Your task to perform on an android device: Search for a custom made wallet on Etsy Image 0: 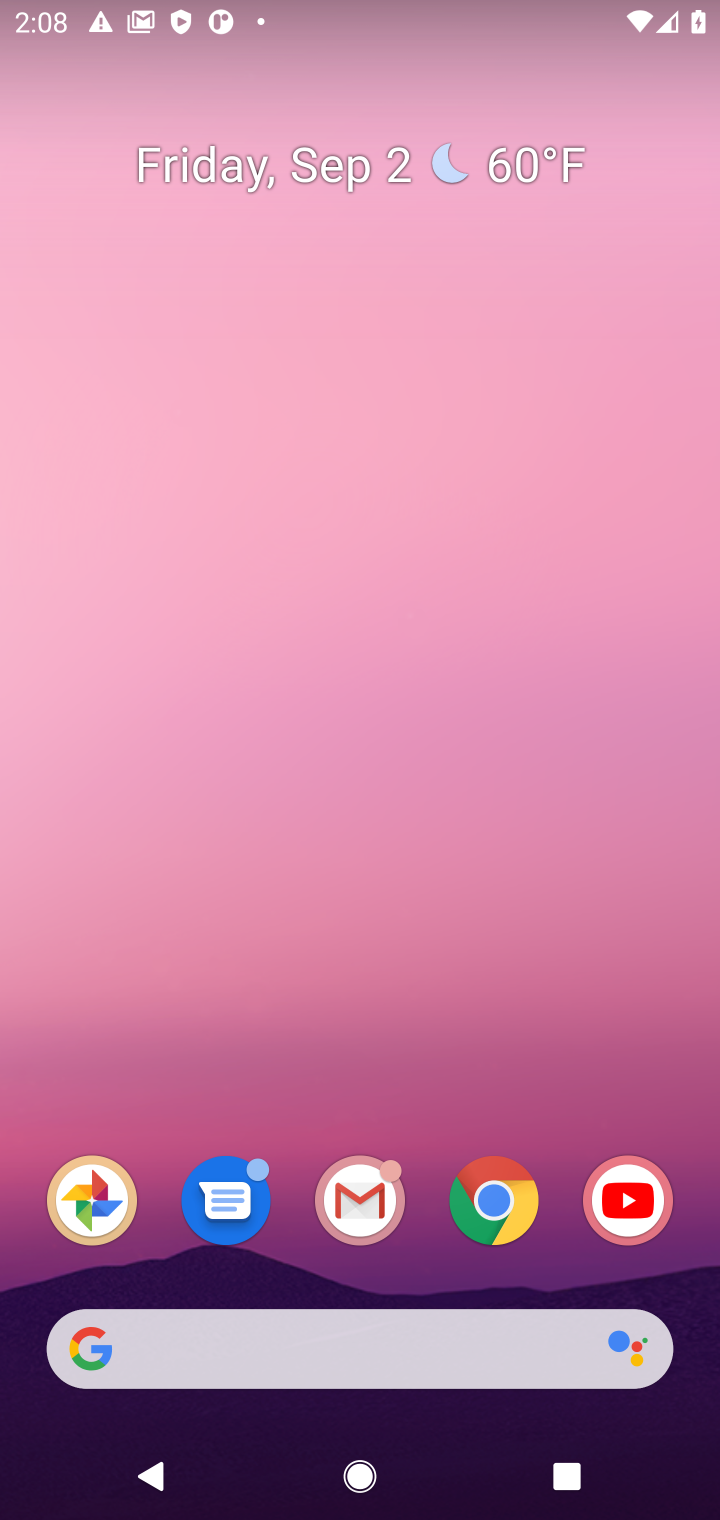
Step 0: click (504, 1204)
Your task to perform on an android device: Search for a custom made wallet on Etsy Image 1: 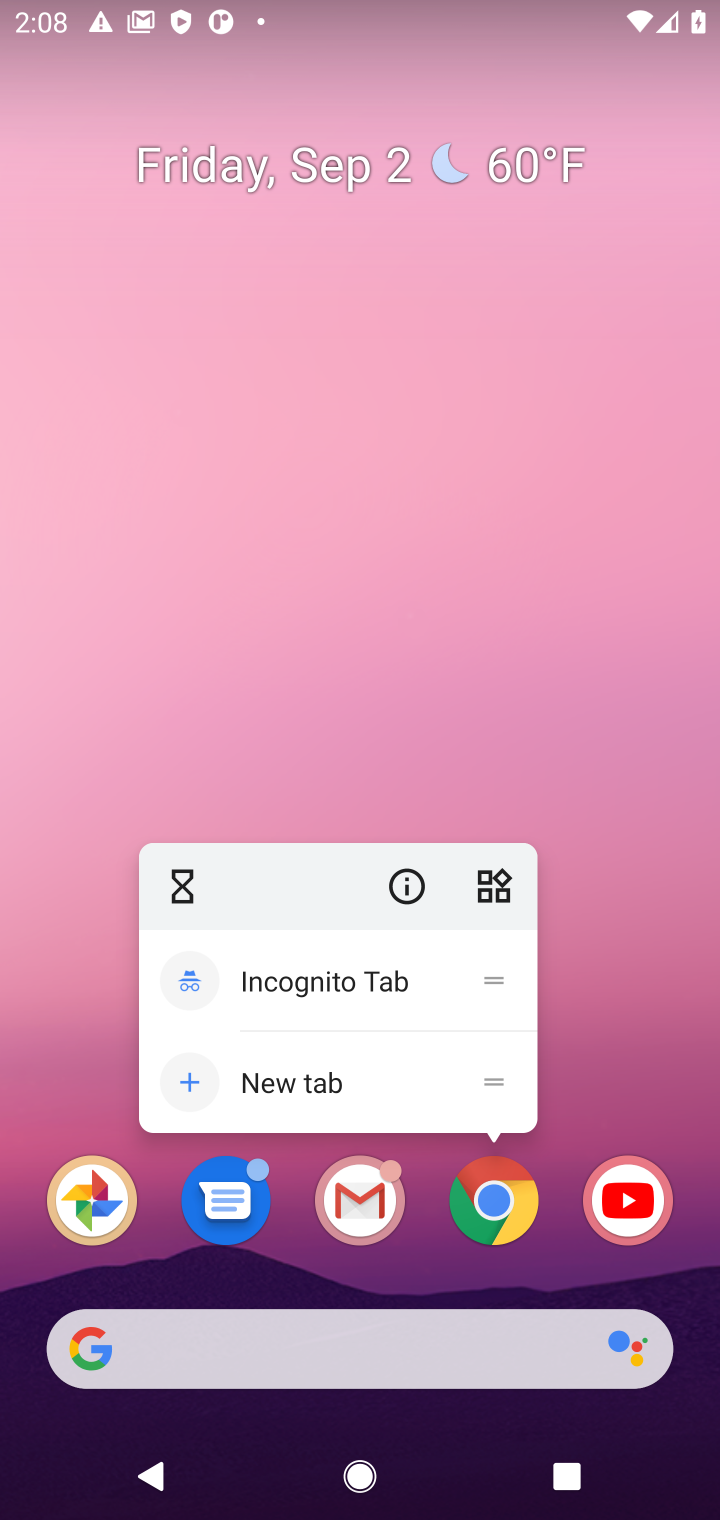
Step 1: click (487, 1211)
Your task to perform on an android device: Search for a custom made wallet on Etsy Image 2: 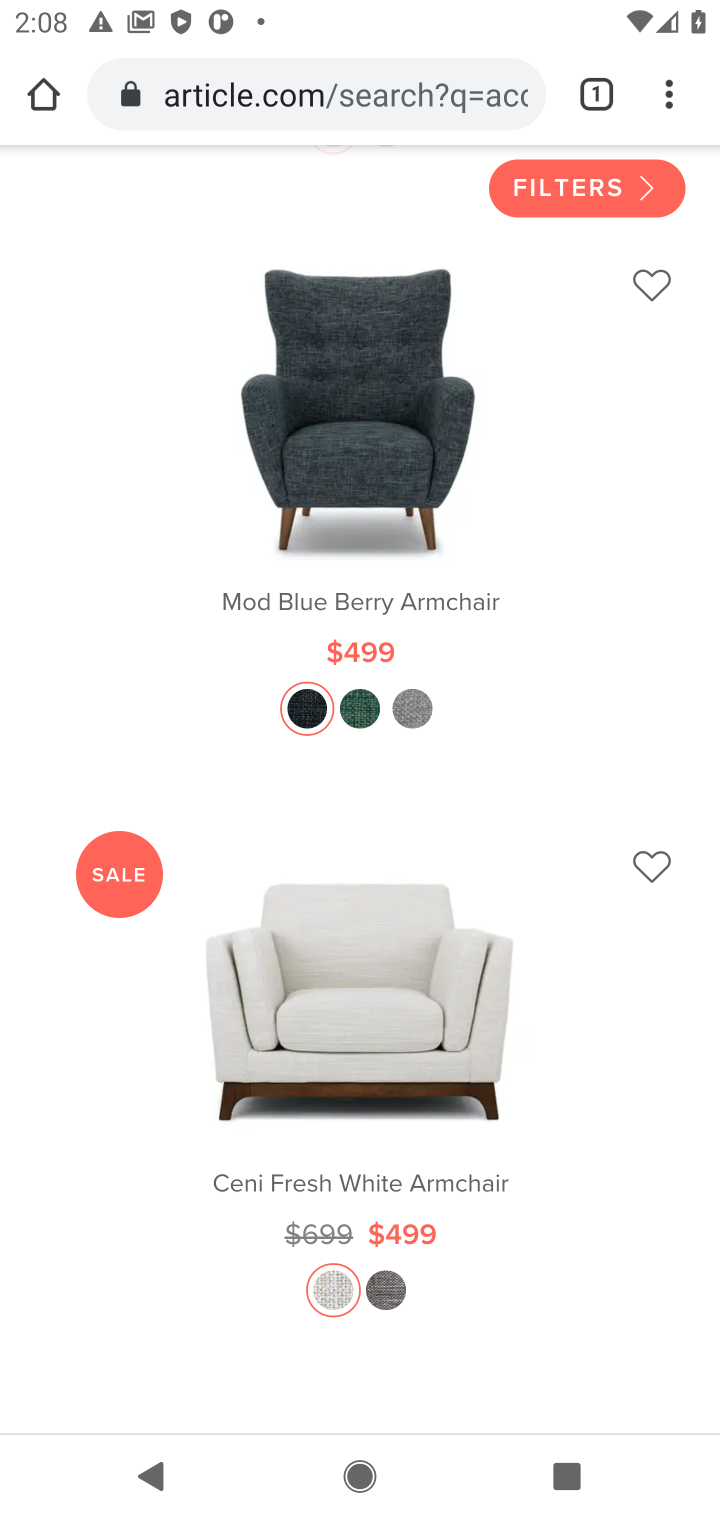
Step 2: click (448, 100)
Your task to perform on an android device: Search for a custom made wallet on Etsy Image 3: 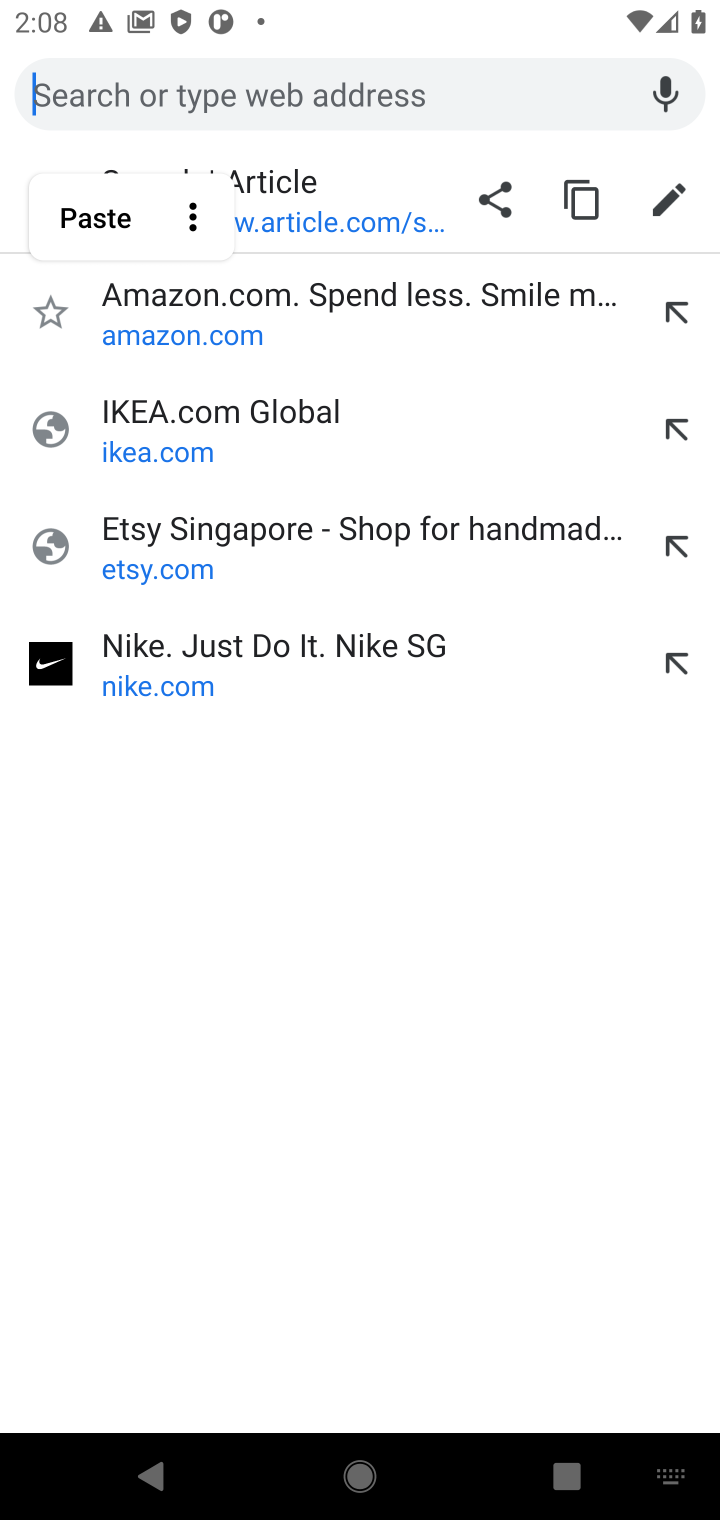
Step 3: type "Etsy"
Your task to perform on an android device: Search for a custom made wallet on Etsy Image 4: 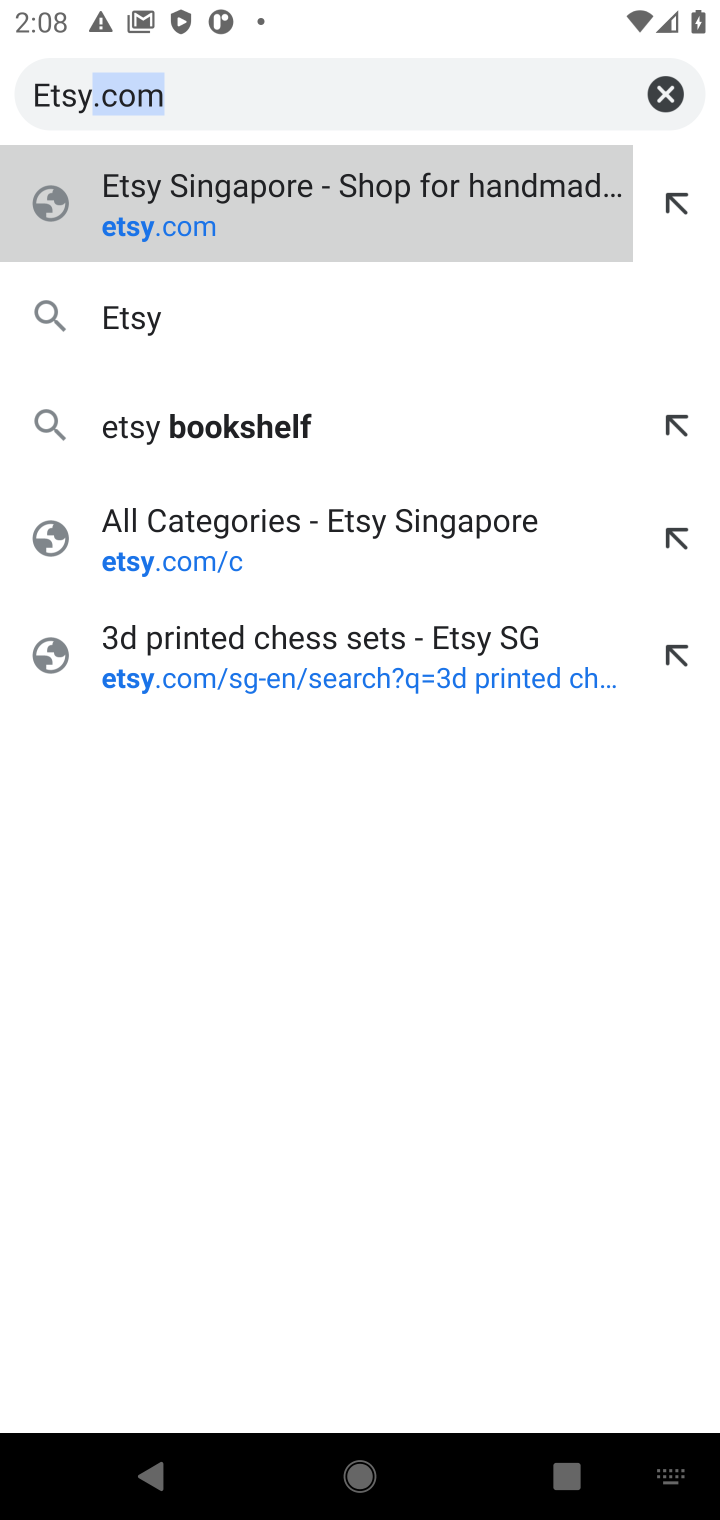
Step 4: press enter
Your task to perform on an android device: Search for a custom made wallet on Etsy Image 5: 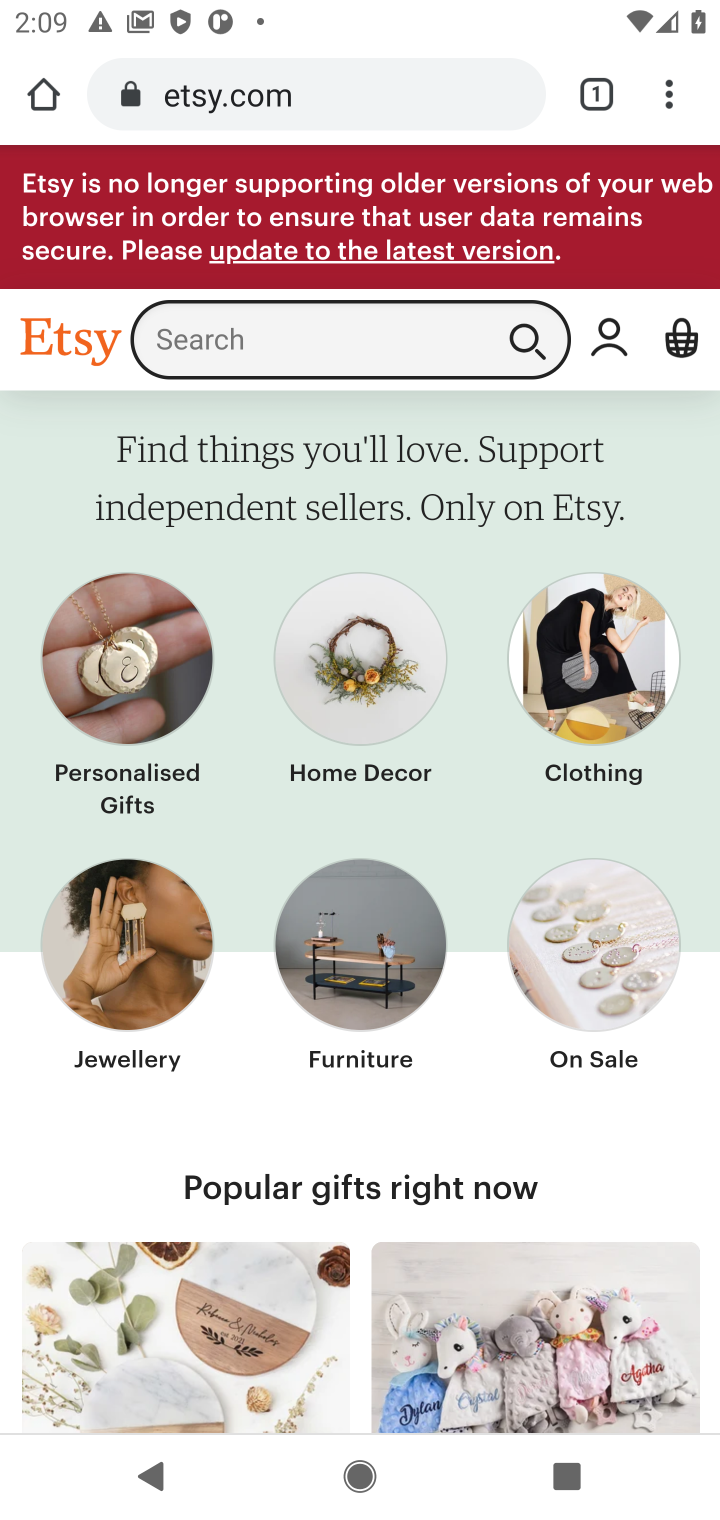
Step 5: click (432, 348)
Your task to perform on an android device: Search for a custom made wallet on Etsy Image 6: 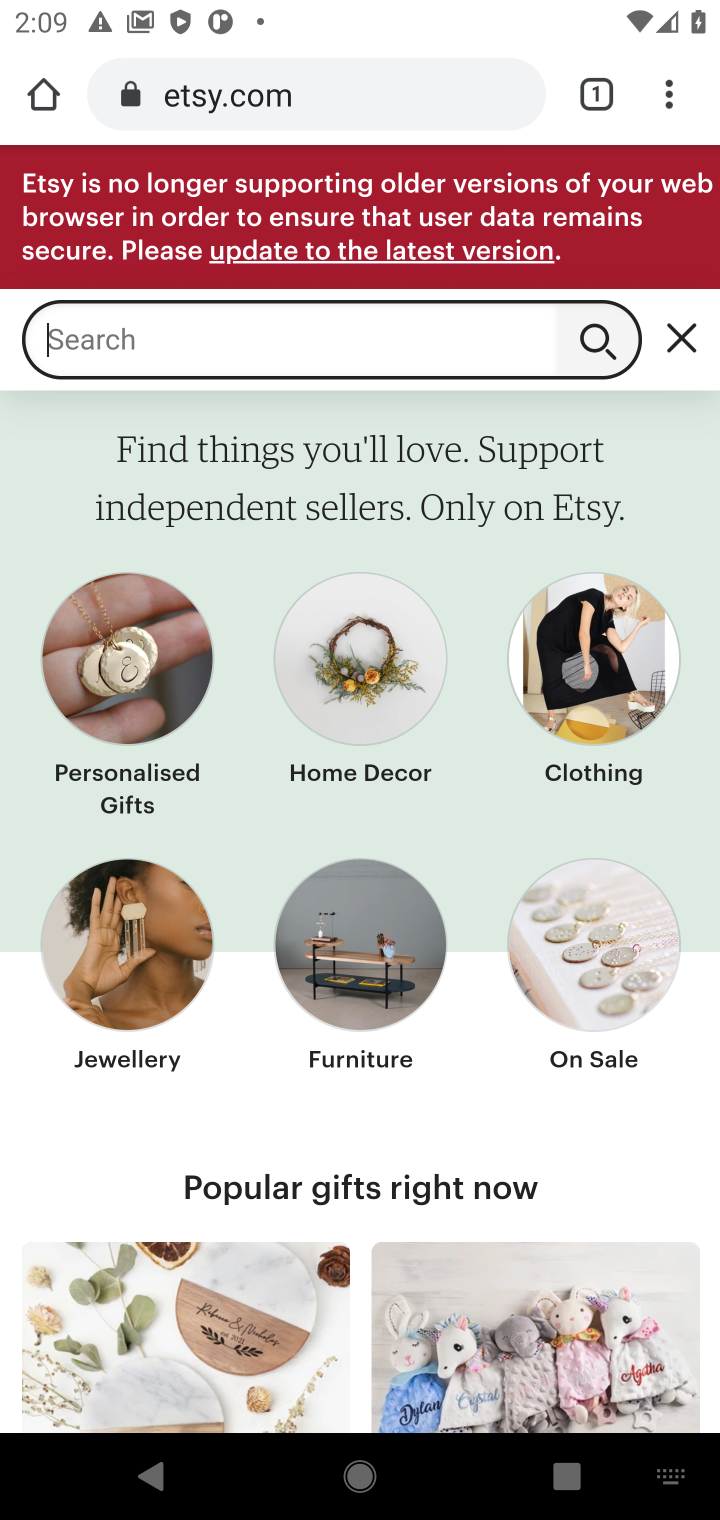
Step 6: click (444, 346)
Your task to perform on an android device: Search for a custom made wallet on Etsy Image 7: 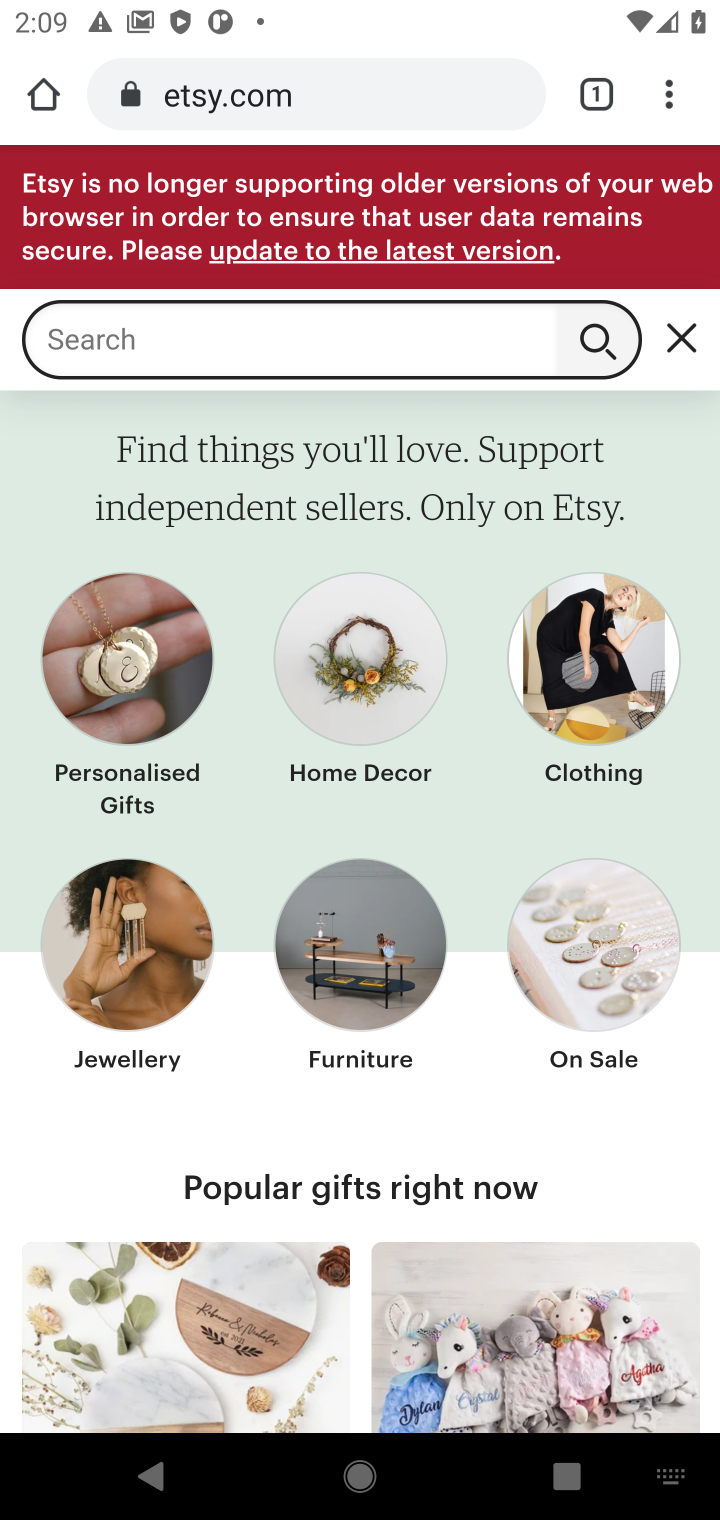
Step 7: press enter
Your task to perform on an android device: Search for a custom made wallet on Etsy Image 8: 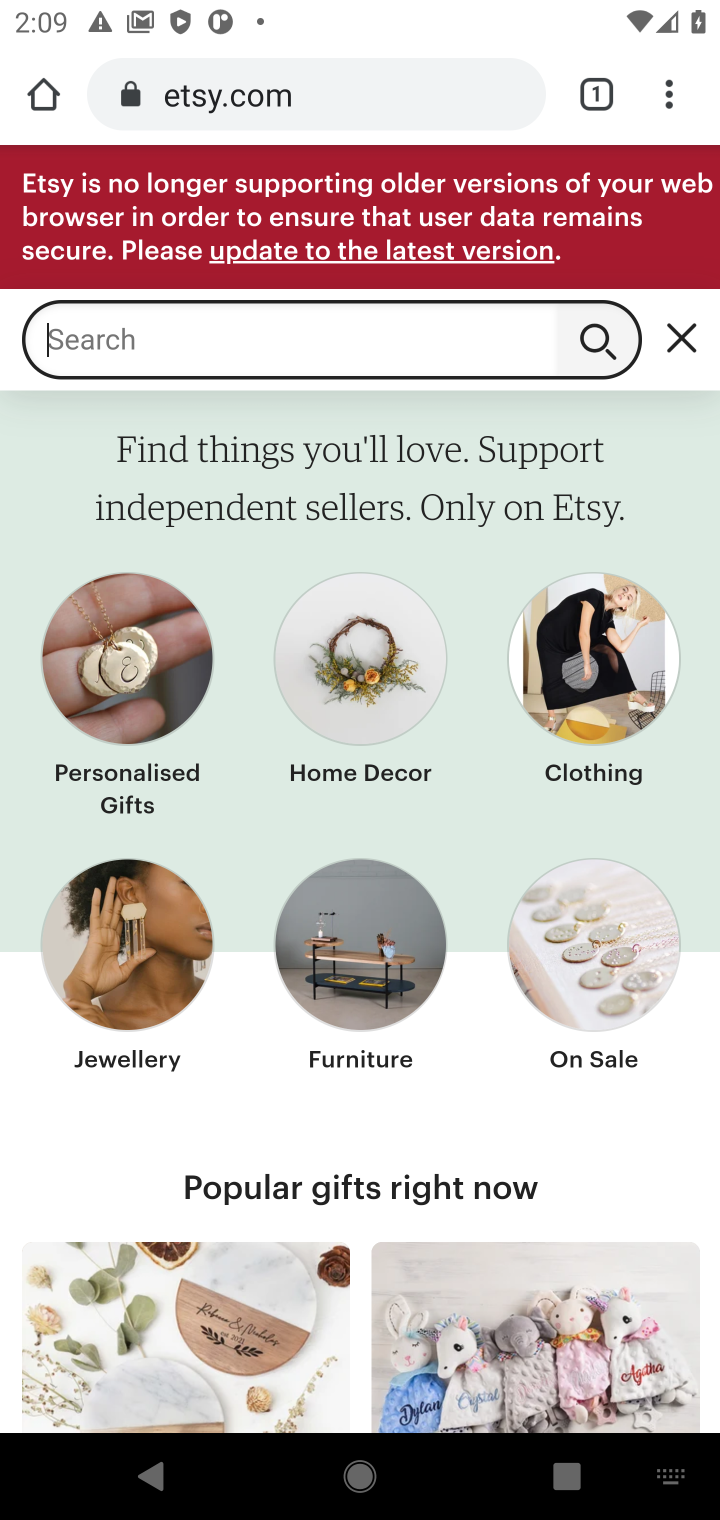
Step 8: type "custom made wallet"
Your task to perform on an android device: Search for a custom made wallet on Etsy Image 9: 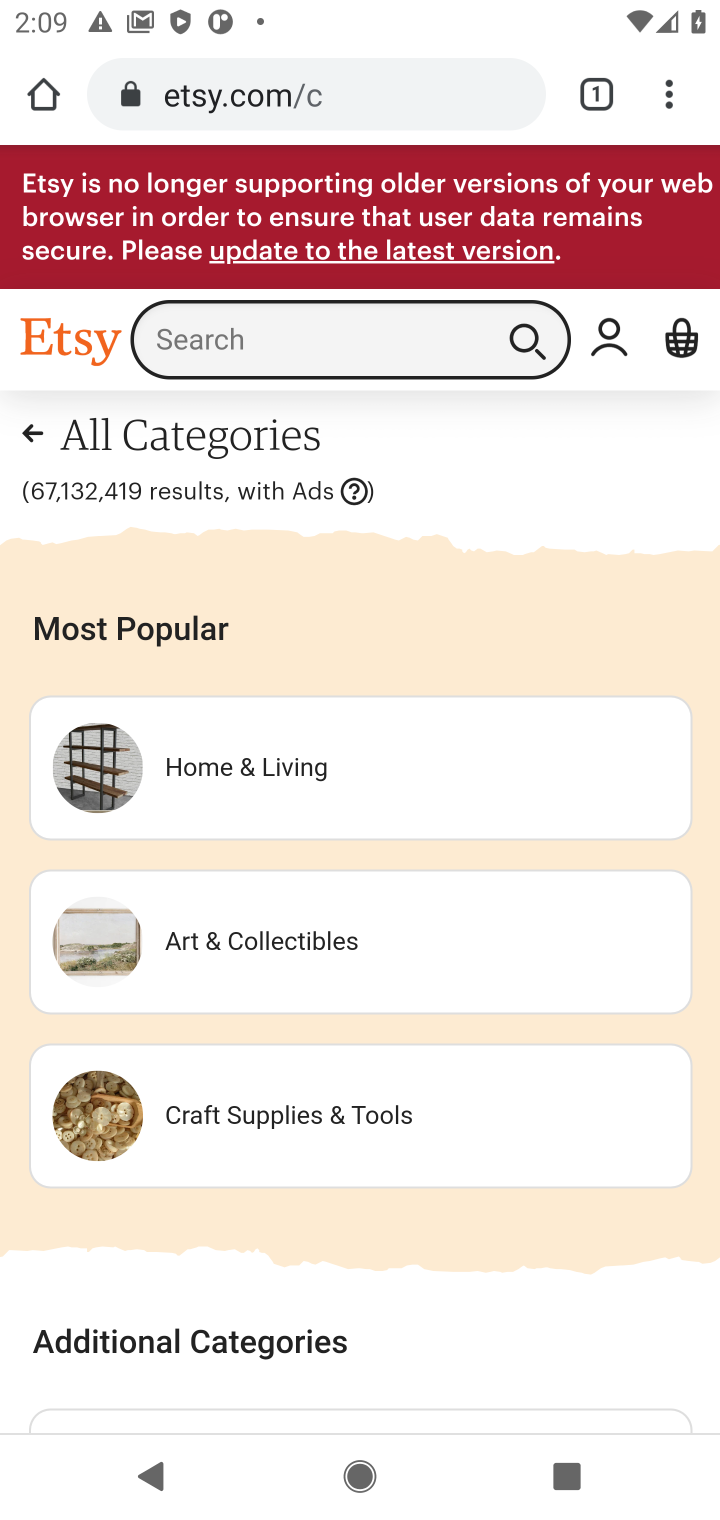
Step 9: click (313, 326)
Your task to perform on an android device: Search for a custom made wallet on Etsy Image 10: 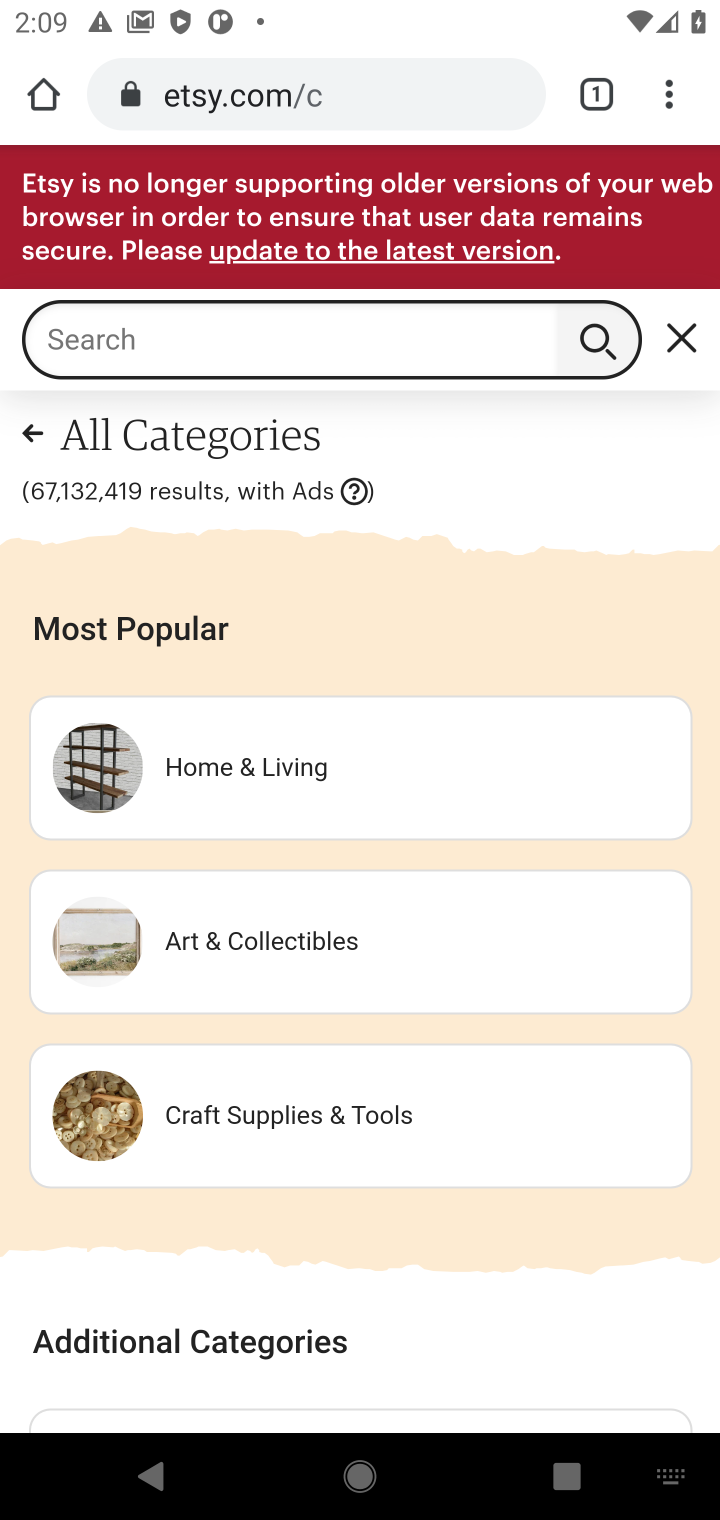
Step 10: type "custom made wallet"
Your task to perform on an android device: Search for a custom made wallet on Etsy Image 11: 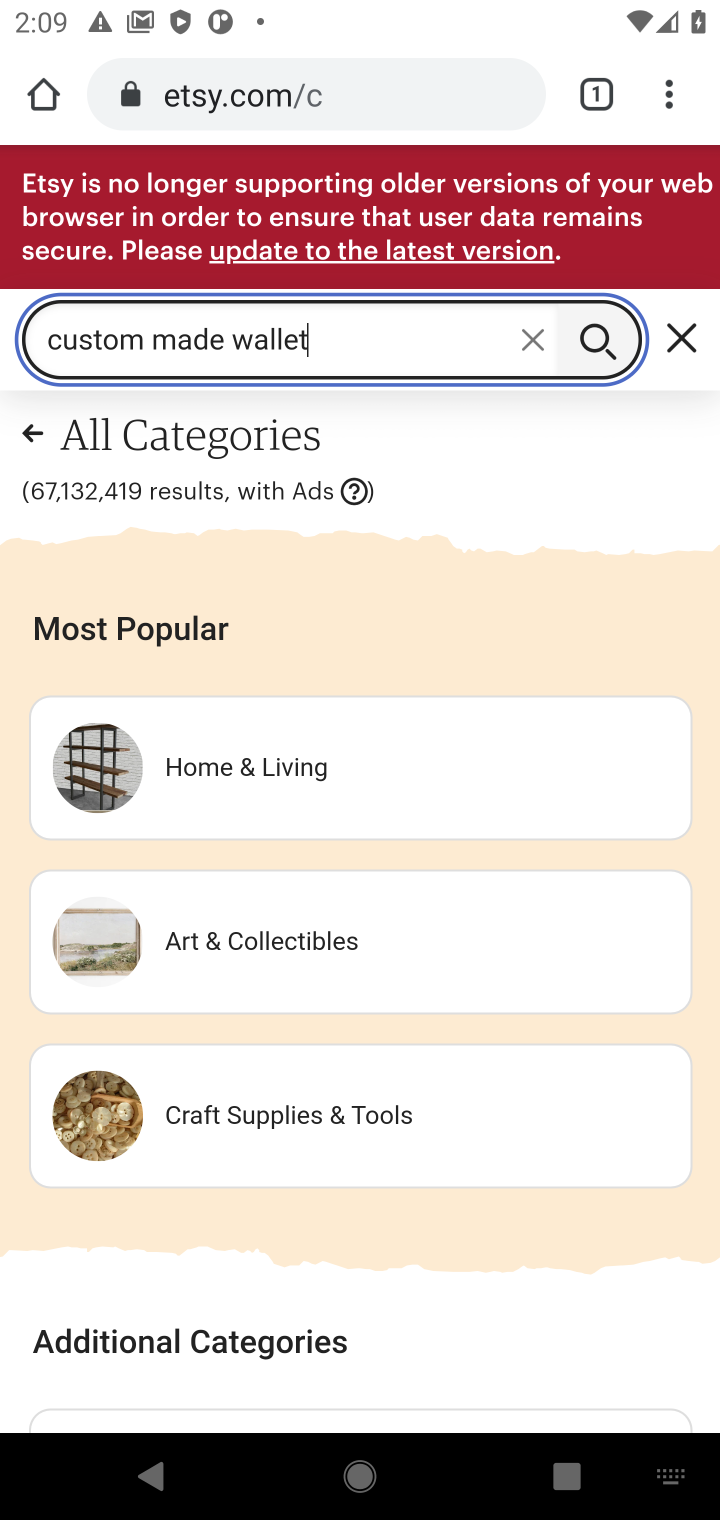
Step 11: press enter
Your task to perform on an android device: Search for a custom made wallet on Etsy Image 12: 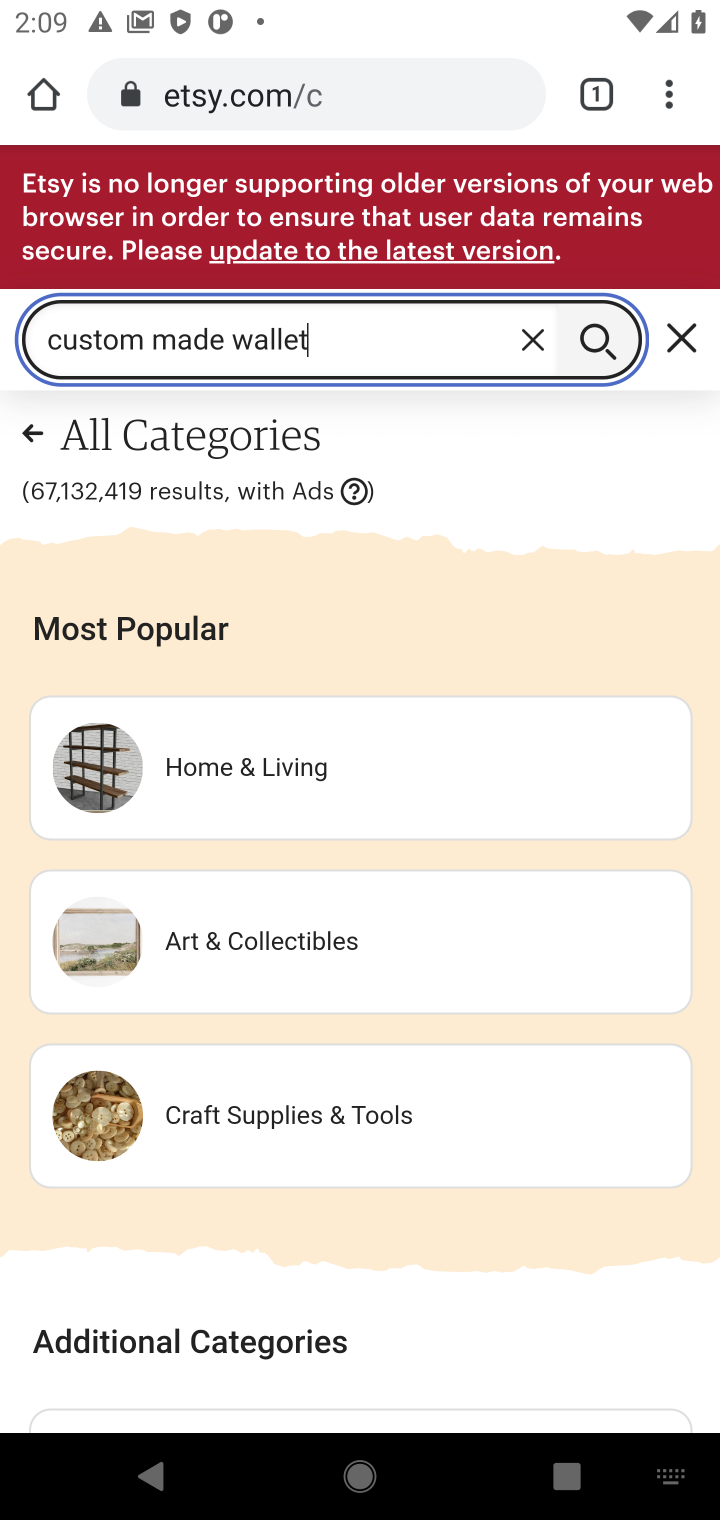
Step 12: click (602, 332)
Your task to perform on an android device: Search for a custom made wallet on Etsy Image 13: 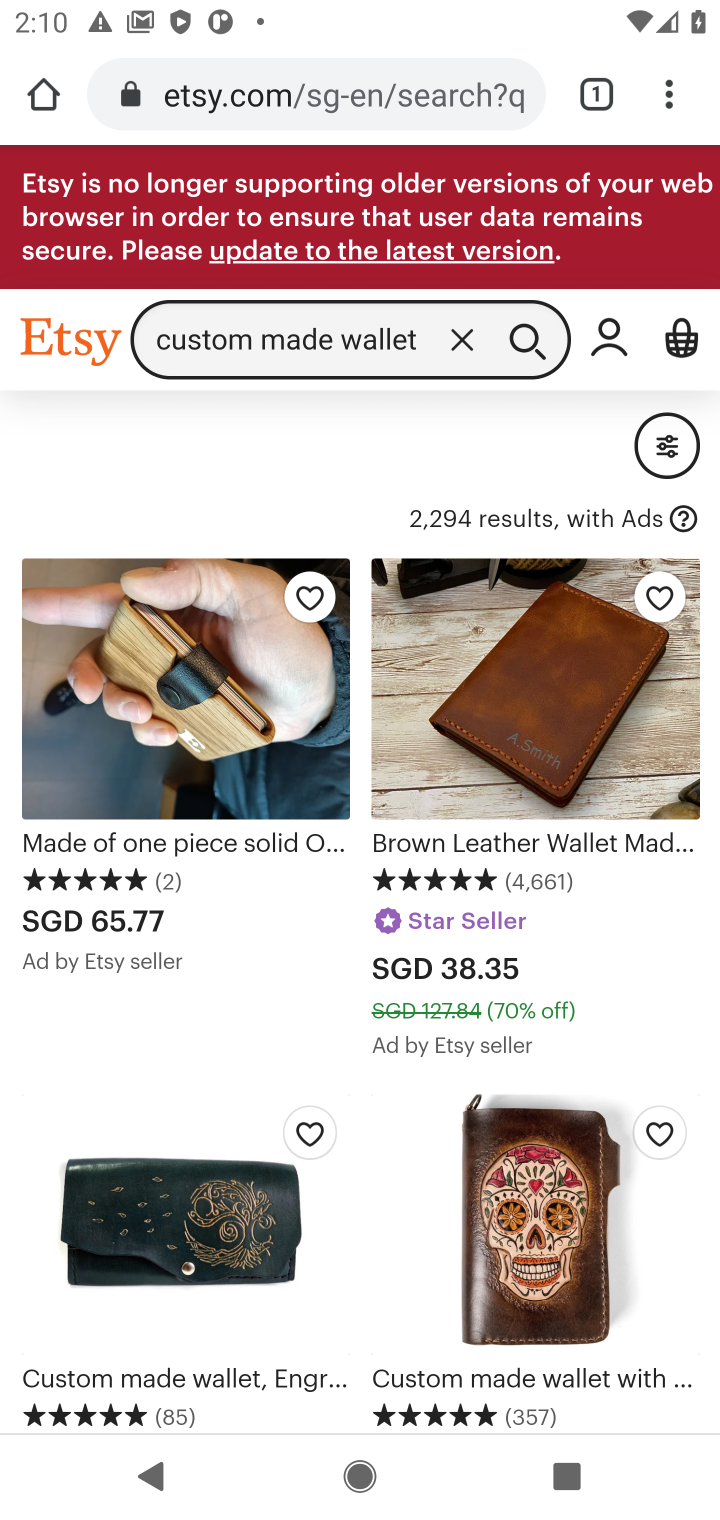
Step 13: click (519, 534)
Your task to perform on an android device: Search for a custom made wallet on Etsy Image 14: 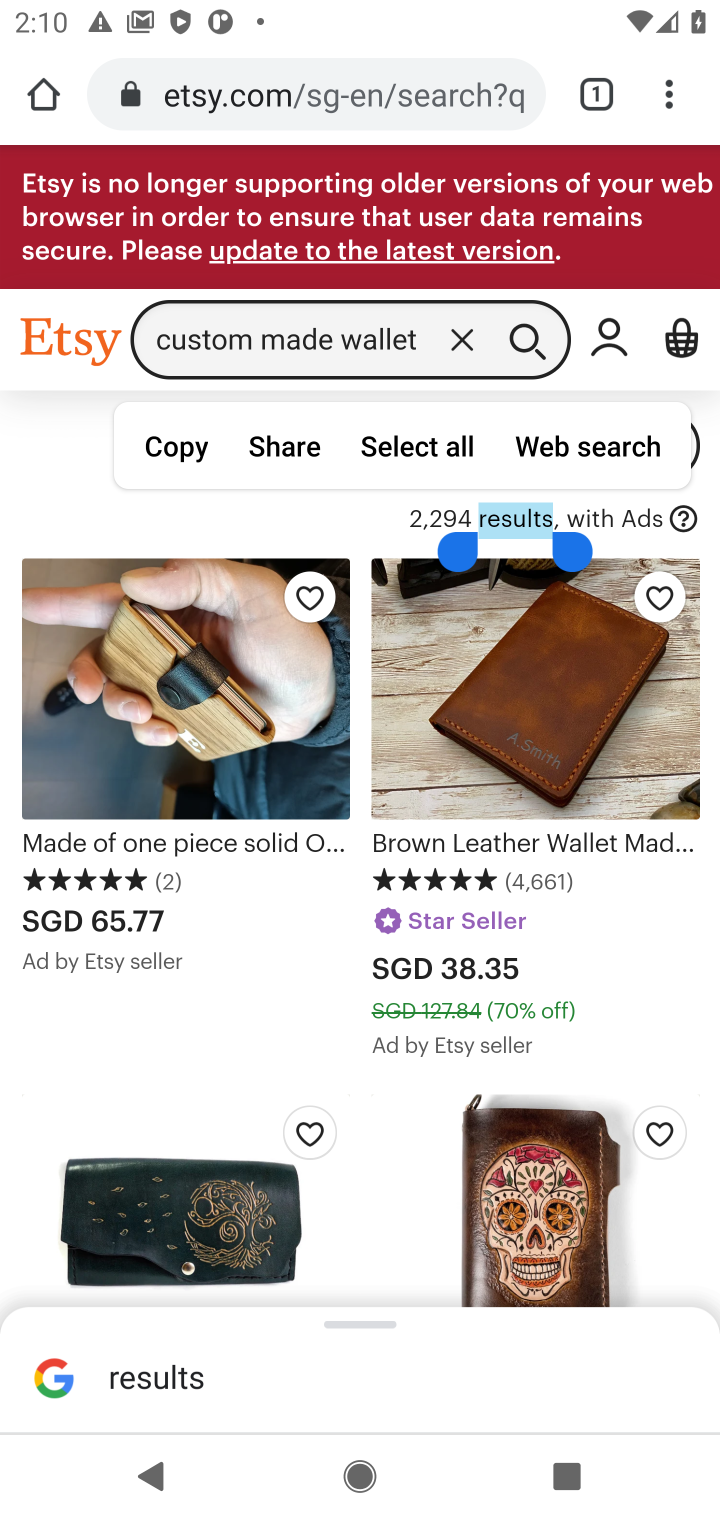
Step 14: drag from (400, 1064) to (532, 647)
Your task to perform on an android device: Search for a custom made wallet on Etsy Image 15: 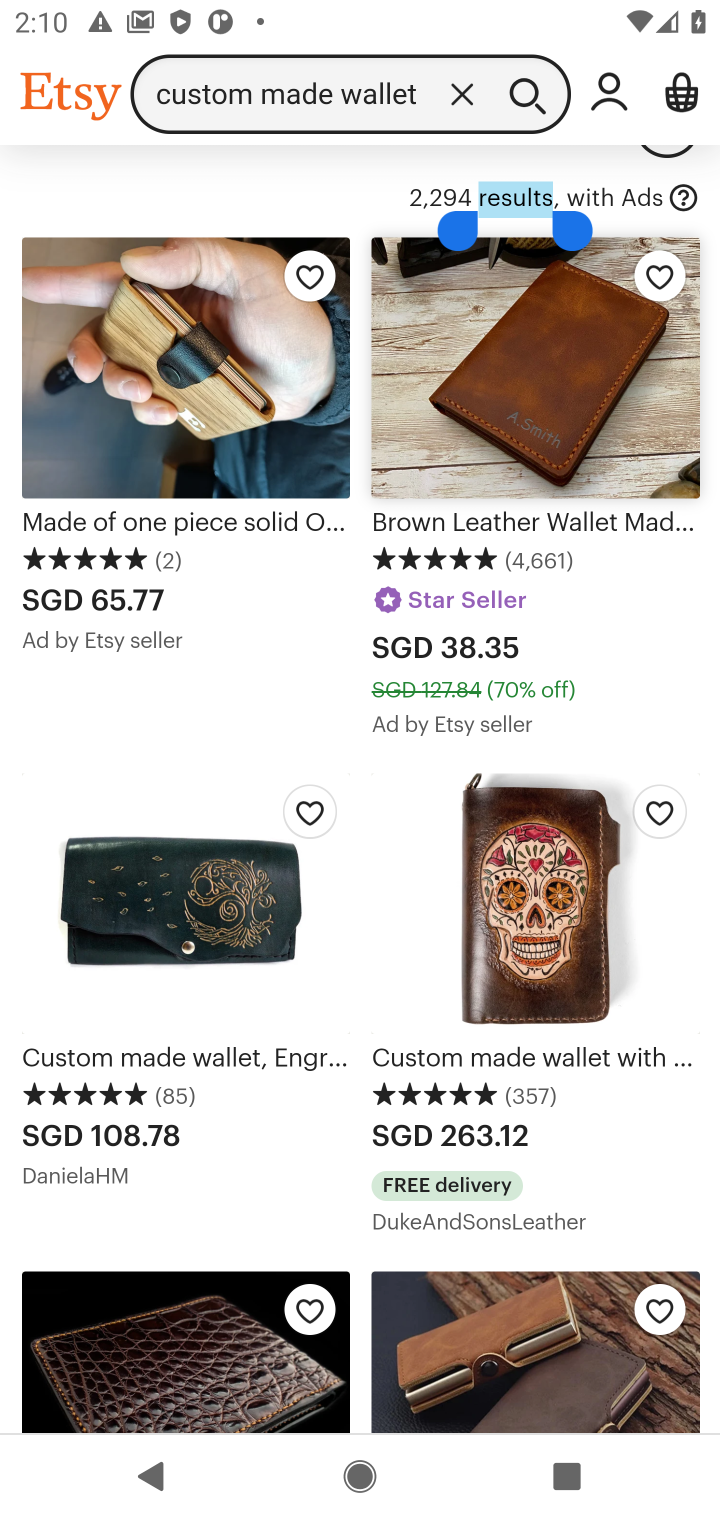
Step 15: click (191, 510)
Your task to perform on an android device: Search for a custom made wallet on Etsy Image 16: 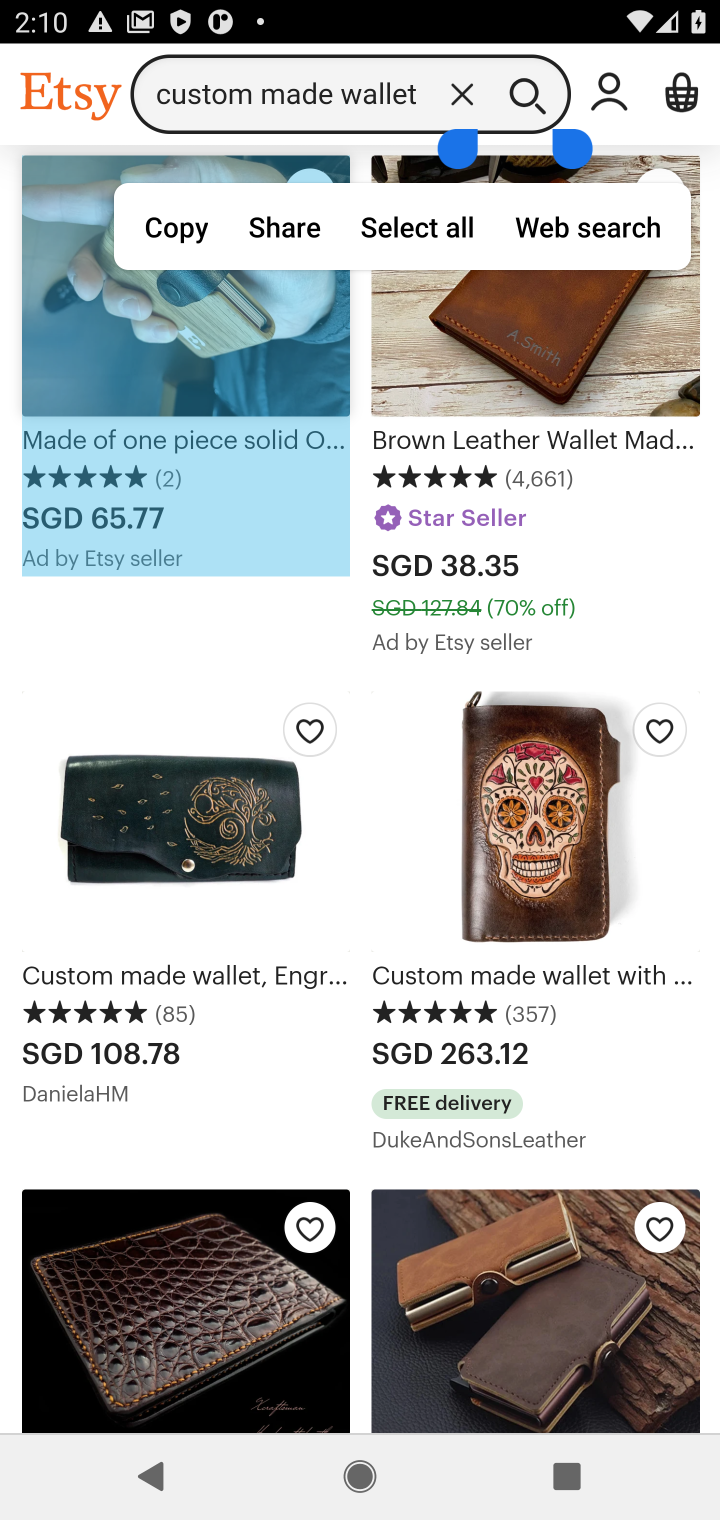
Step 16: task complete